Your task to perform on an android device: clear history in the chrome app Image 0: 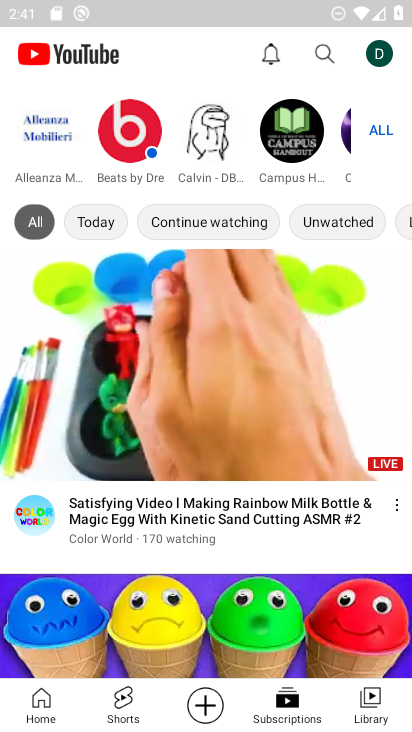
Step 0: press home button
Your task to perform on an android device: clear history in the chrome app Image 1: 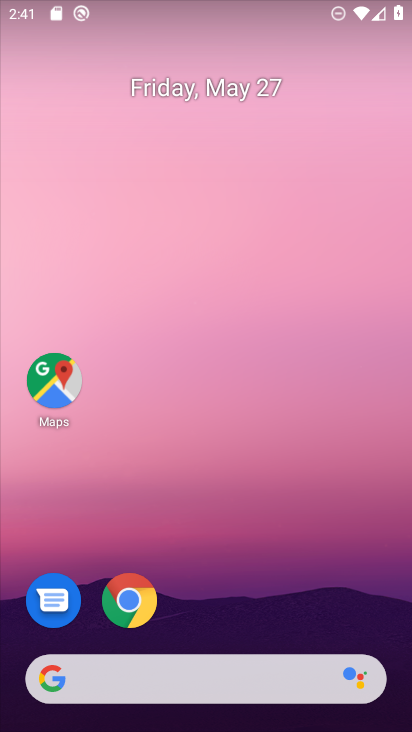
Step 1: click (125, 593)
Your task to perform on an android device: clear history in the chrome app Image 2: 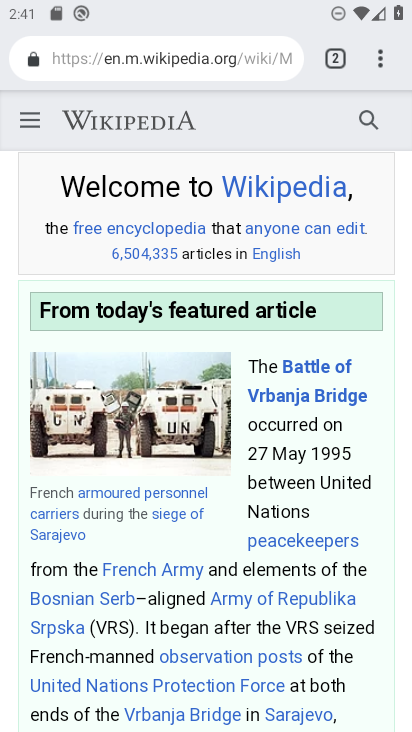
Step 2: click (381, 66)
Your task to perform on an android device: clear history in the chrome app Image 3: 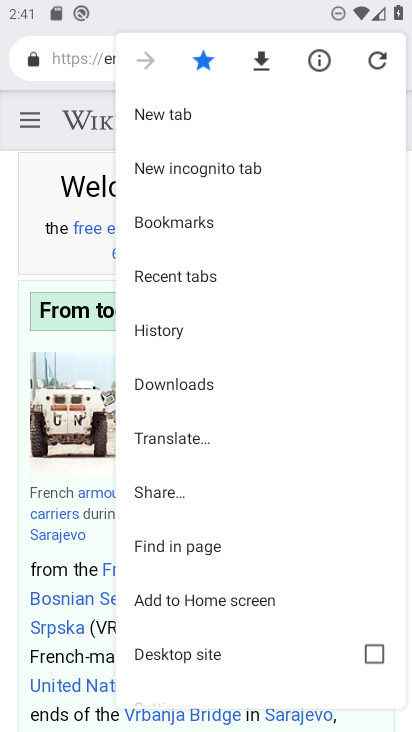
Step 3: drag from (191, 659) to (197, 360)
Your task to perform on an android device: clear history in the chrome app Image 4: 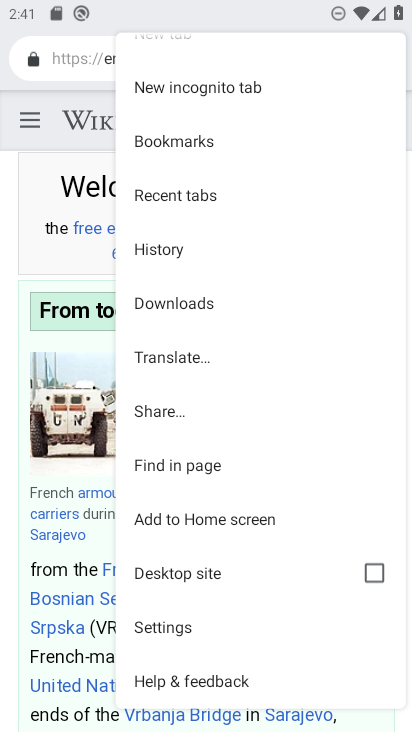
Step 4: click (167, 246)
Your task to perform on an android device: clear history in the chrome app Image 5: 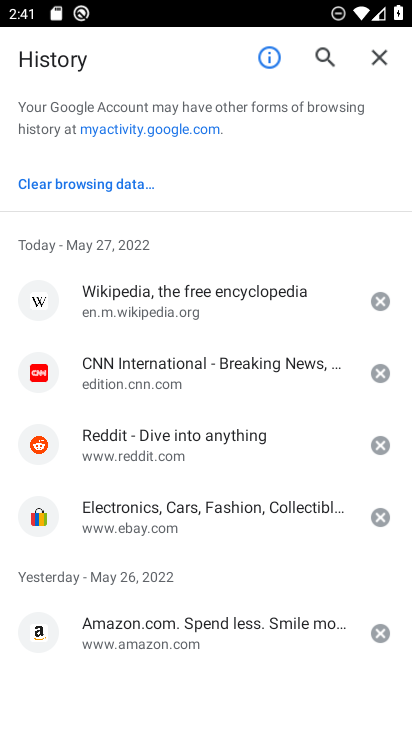
Step 5: click (101, 181)
Your task to perform on an android device: clear history in the chrome app Image 6: 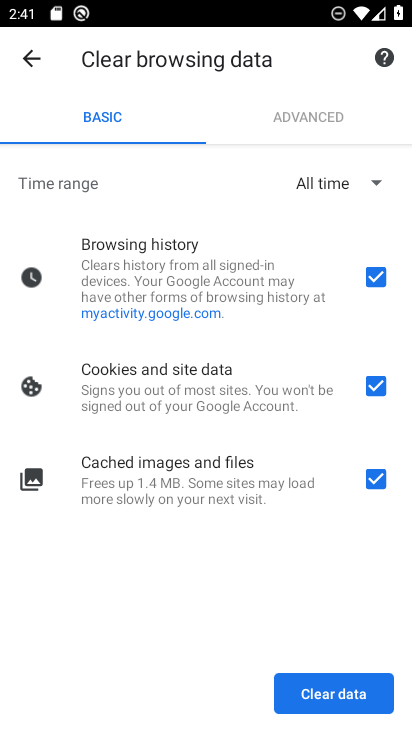
Step 6: click (385, 385)
Your task to perform on an android device: clear history in the chrome app Image 7: 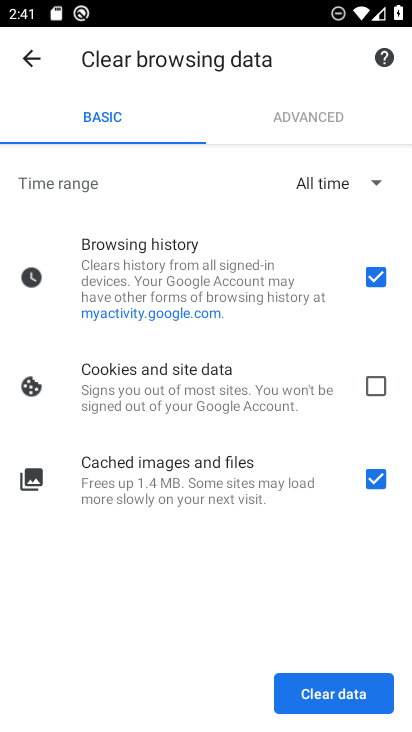
Step 7: click (378, 478)
Your task to perform on an android device: clear history in the chrome app Image 8: 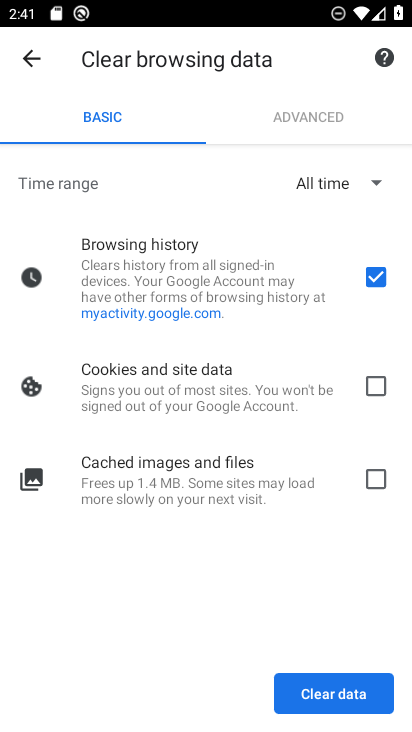
Step 8: click (330, 694)
Your task to perform on an android device: clear history in the chrome app Image 9: 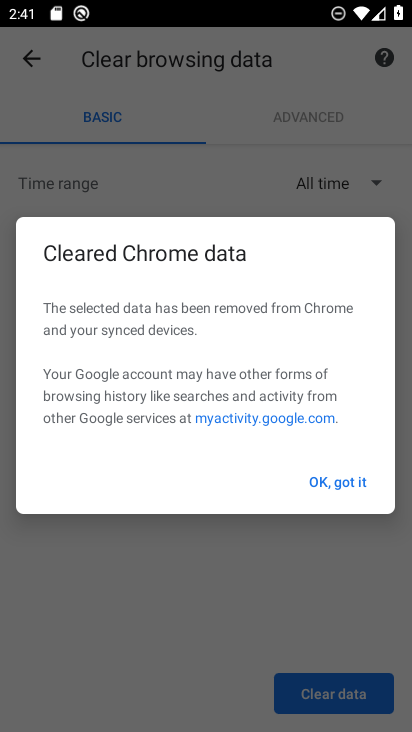
Step 9: click (335, 480)
Your task to perform on an android device: clear history in the chrome app Image 10: 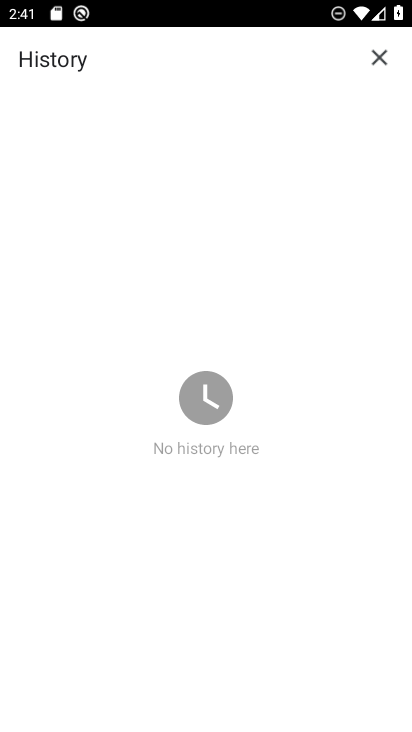
Step 10: task complete